Your task to perform on an android device: Open the calendar app, open the side menu, and click the "Day" option Image 0: 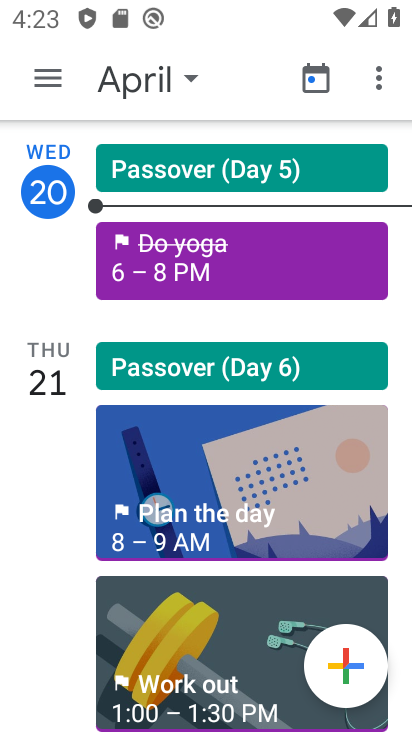
Step 0: click (56, 67)
Your task to perform on an android device: Open the calendar app, open the side menu, and click the "Day" option Image 1: 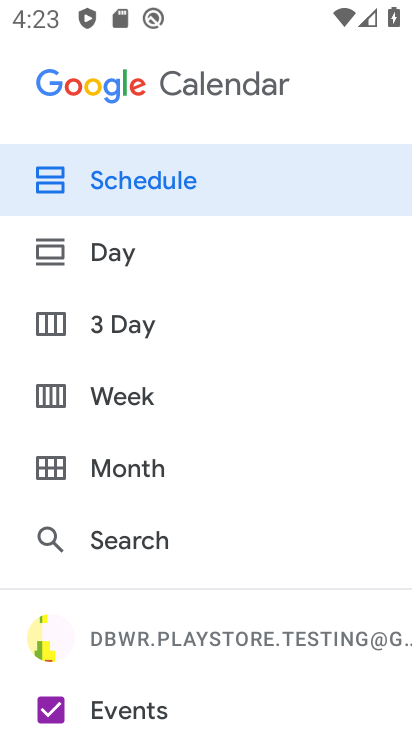
Step 1: click (126, 254)
Your task to perform on an android device: Open the calendar app, open the side menu, and click the "Day" option Image 2: 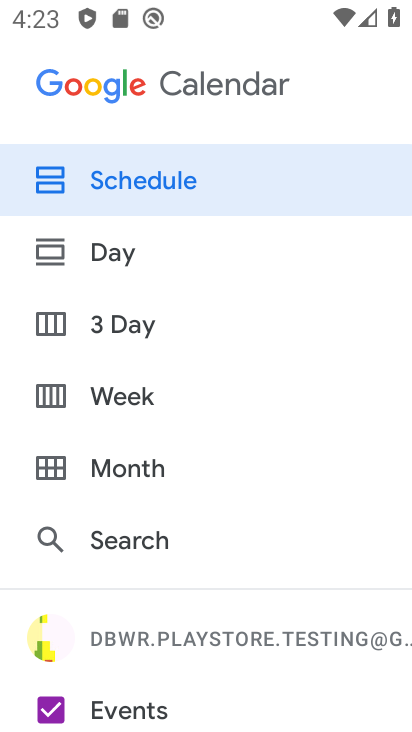
Step 2: click (121, 242)
Your task to perform on an android device: Open the calendar app, open the side menu, and click the "Day" option Image 3: 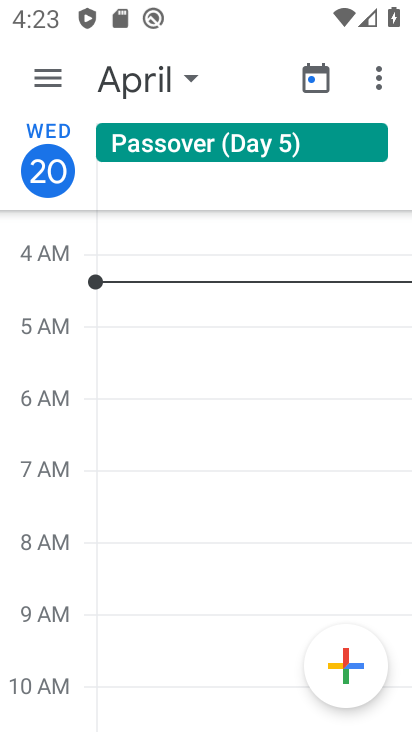
Step 3: task complete